Your task to perform on an android device: Open calendar and show me the second week of next month Image 0: 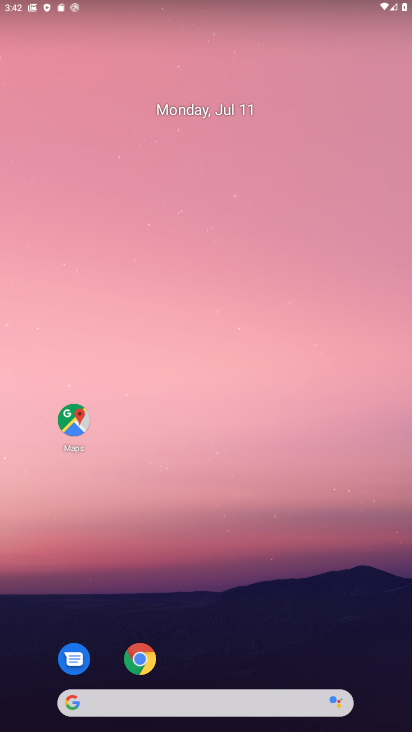
Step 0: click (202, 119)
Your task to perform on an android device: Open calendar and show me the second week of next month Image 1: 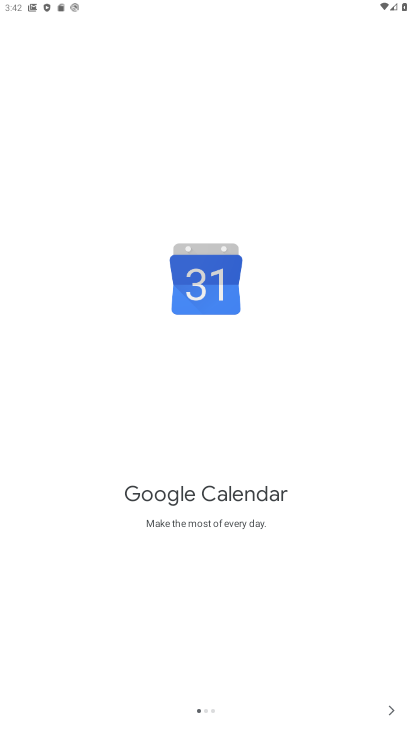
Step 1: click (393, 708)
Your task to perform on an android device: Open calendar and show me the second week of next month Image 2: 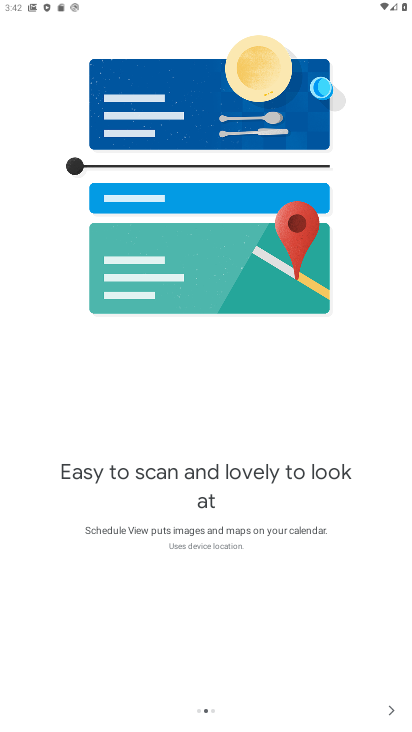
Step 2: click (393, 708)
Your task to perform on an android device: Open calendar and show me the second week of next month Image 3: 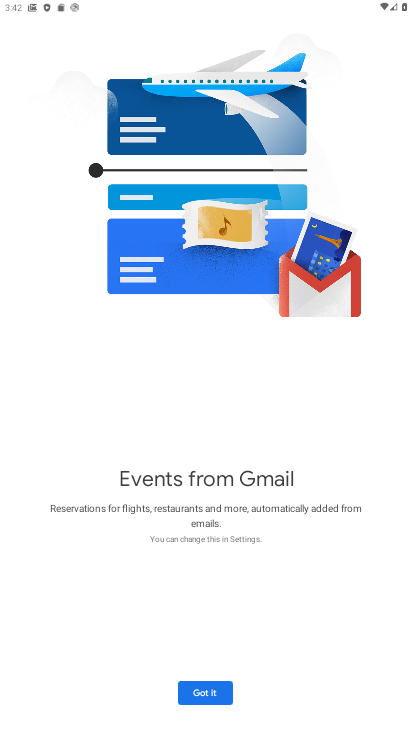
Step 3: click (181, 702)
Your task to perform on an android device: Open calendar and show me the second week of next month Image 4: 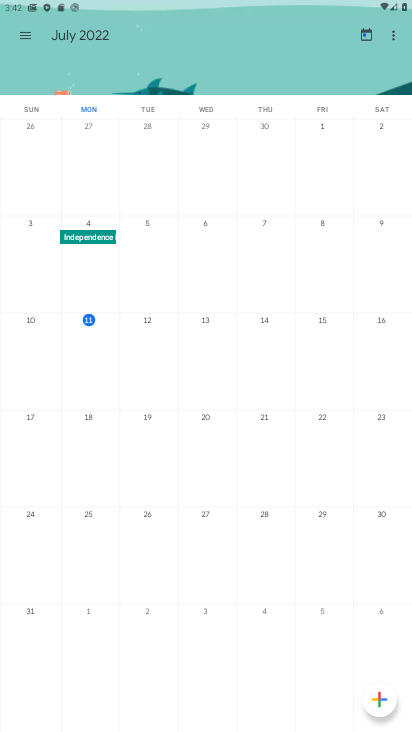
Step 4: click (86, 32)
Your task to perform on an android device: Open calendar and show me the second week of next month Image 5: 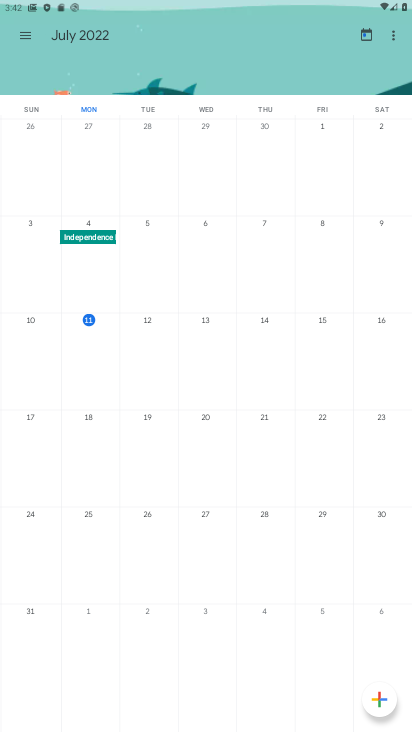
Step 5: click (37, 29)
Your task to perform on an android device: Open calendar and show me the second week of next month Image 6: 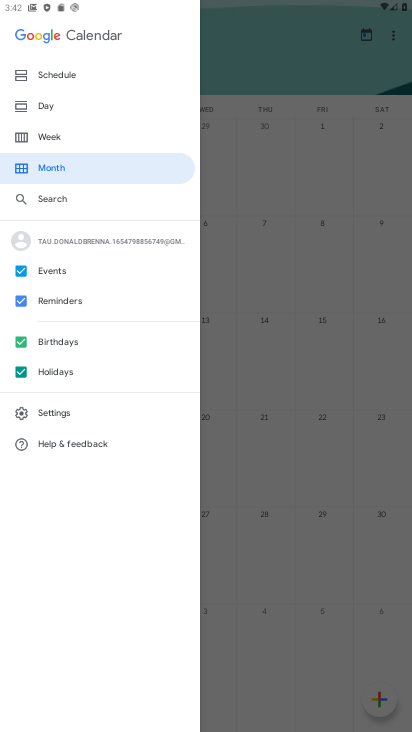
Step 6: click (90, 116)
Your task to perform on an android device: Open calendar and show me the second week of next month Image 7: 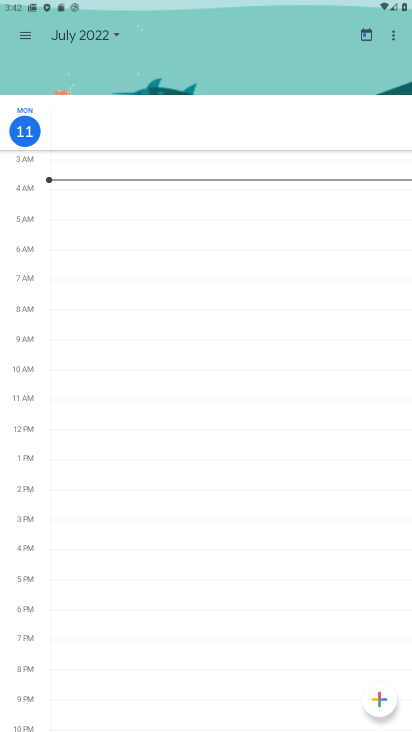
Step 7: click (116, 39)
Your task to perform on an android device: Open calendar and show me the second week of next month Image 8: 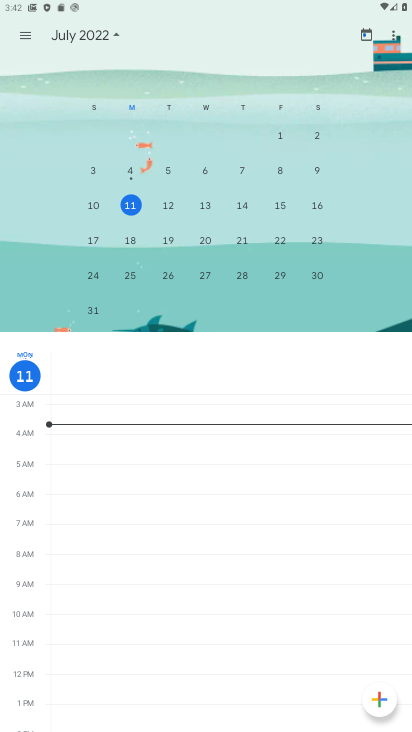
Step 8: drag from (337, 312) to (43, 244)
Your task to perform on an android device: Open calendar and show me the second week of next month Image 9: 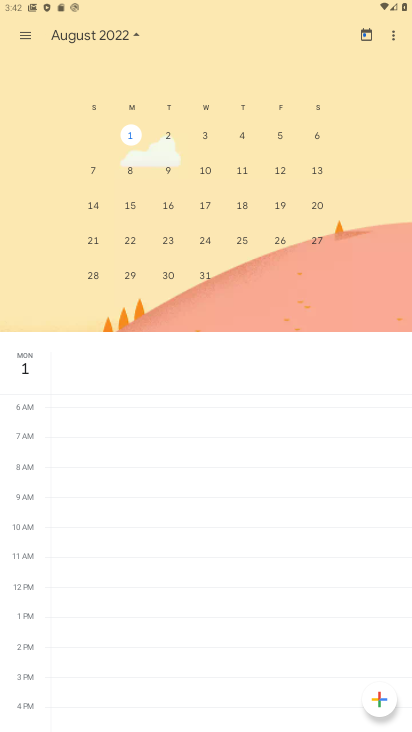
Step 9: click (126, 169)
Your task to perform on an android device: Open calendar and show me the second week of next month Image 10: 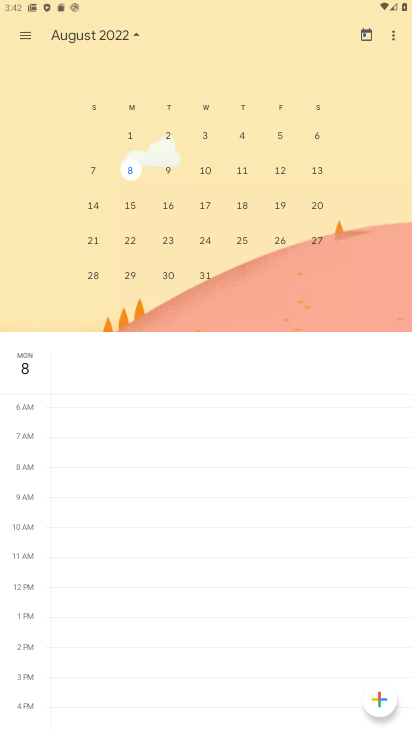
Step 10: task complete